Your task to perform on an android device: Open settings Image 0: 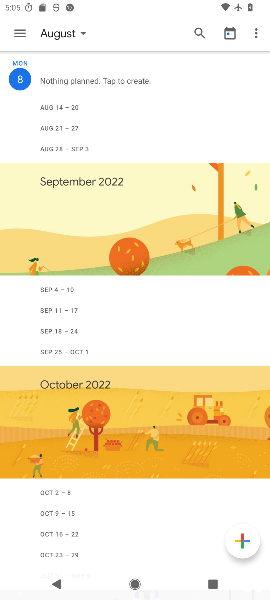
Step 0: press home button
Your task to perform on an android device: Open settings Image 1: 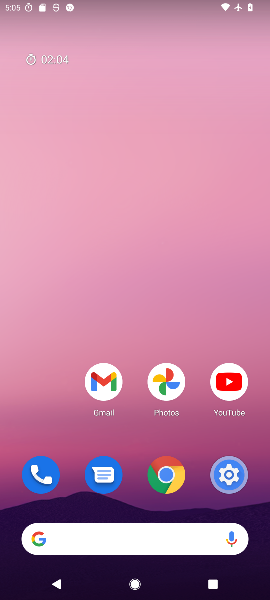
Step 1: drag from (55, 417) to (59, 169)
Your task to perform on an android device: Open settings Image 2: 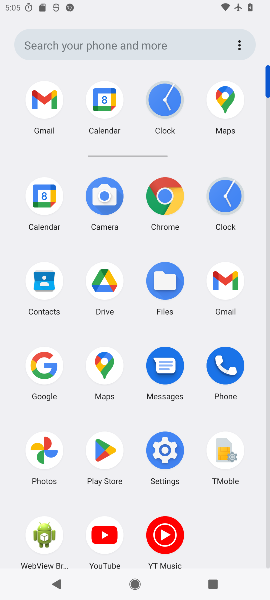
Step 2: click (169, 459)
Your task to perform on an android device: Open settings Image 3: 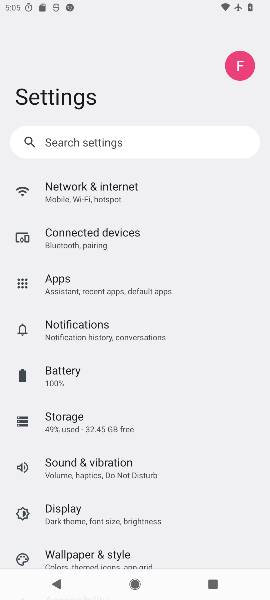
Step 3: task complete